Your task to perform on an android device: Open settings Image 0: 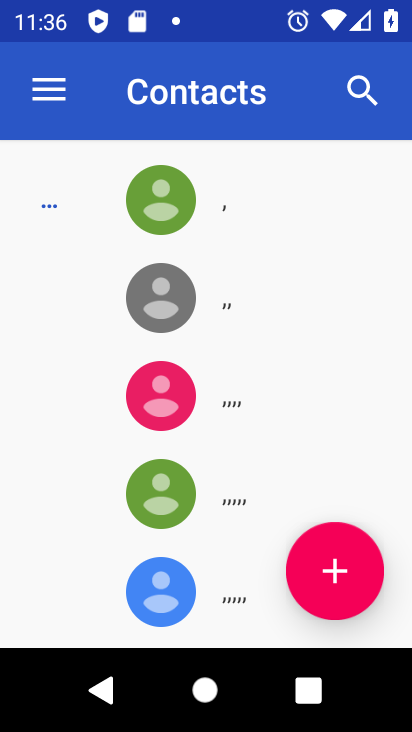
Step 0: press home button
Your task to perform on an android device: Open settings Image 1: 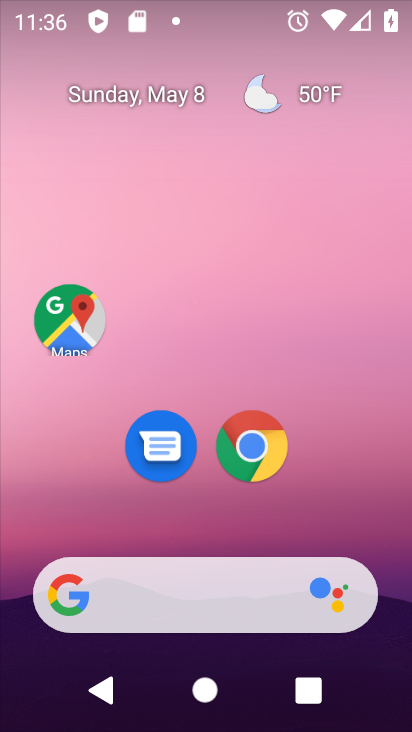
Step 1: drag from (355, 540) to (340, 15)
Your task to perform on an android device: Open settings Image 2: 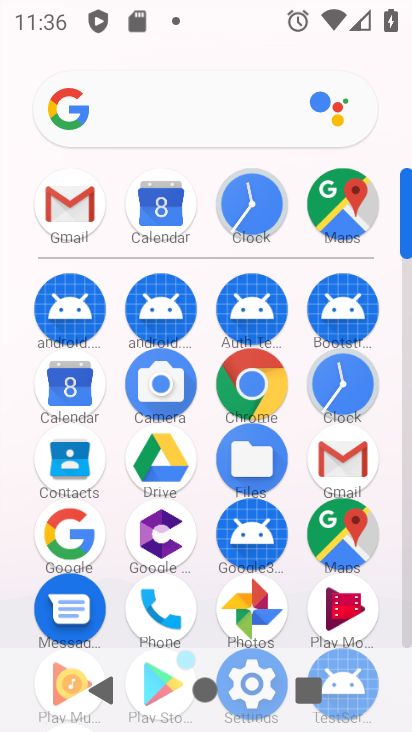
Step 2: drag from (291, 604) to (257, 342)
Your task to perform on an android device: Open settings Image 3: 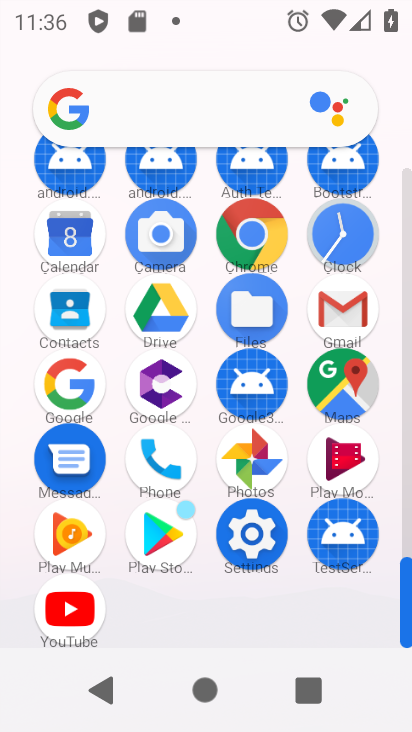
Step 3: click (263, 525)
Your task to perform on an android device: Open settings Image 4: 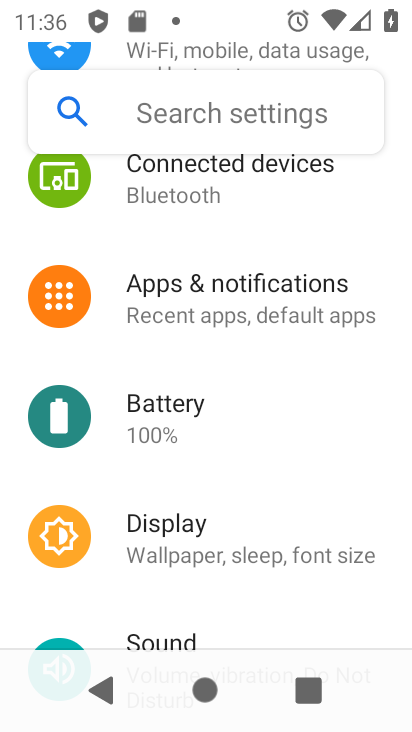
Step 4: task complete